Your task to perform on an android device: see sites visited before in the chrome app Image 0: 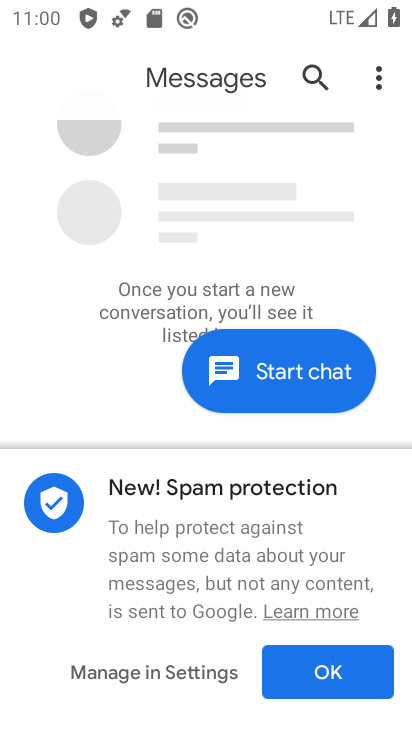
Step 0: press home button
Your task to perform on an android device: see sites visited before in the chrome app Image 1: 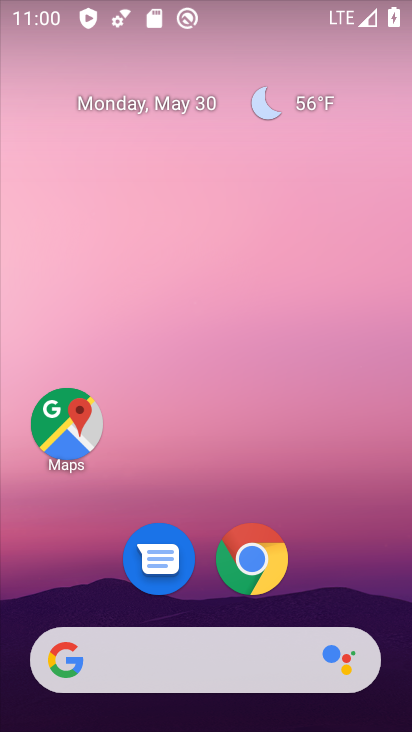
Step 1: click (278, 573)
Your task to perform on an android device: see sites visited before in the chrome app Image 2: 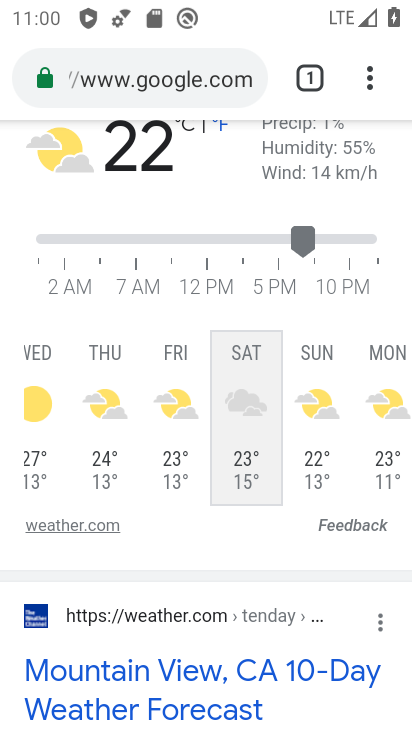
Step 2: click (379, 103)
Your task to perform on an android device: see sites visited before in the chrome app Image 3: 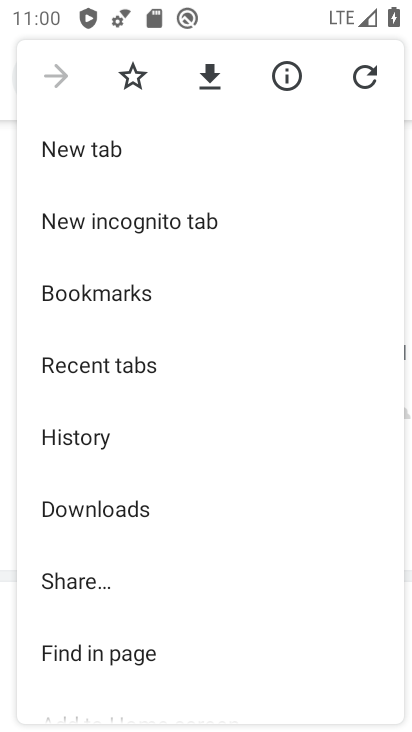
Step 3: click (186, 438)
Your task to perform on an android device: see sites visited before in the chrome app Image 4: 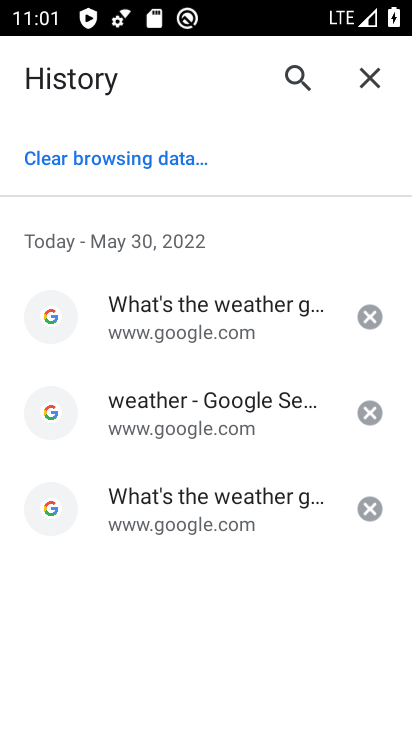
Step 4: task complete